Your task to perform on an android device: When is my next meeting? Image 0: 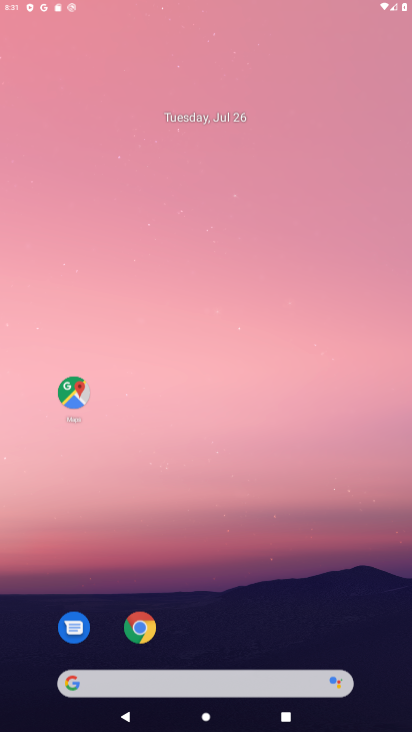
Step 0: press home button
Your task to perform on an android device: When is my next meeting? Image 1: 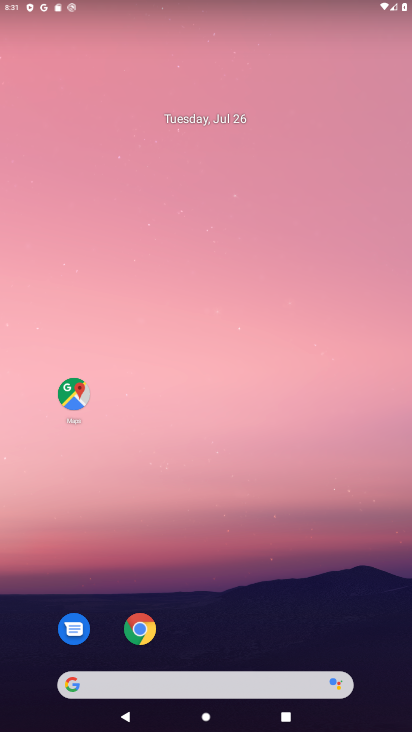
Step 1: drag from (272, 598) to (325, 2)
Your task to perform on an android device: When is my next meeting? Image 2: 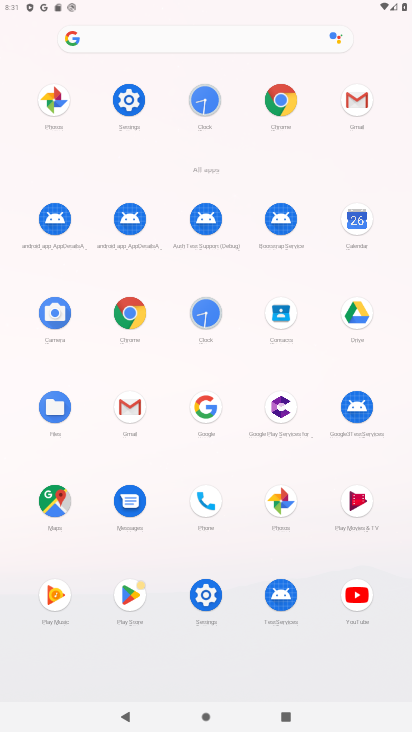
Step 2: click (340, 215)
Your task to perform on an android device: When is my next meeting? Image 3: 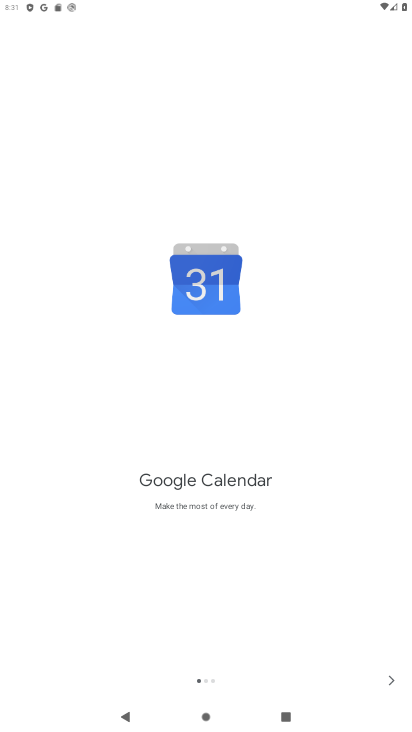
Step 3: click (402, 683)
Your task to perform on an android device: When is my next meeting? Image 4: 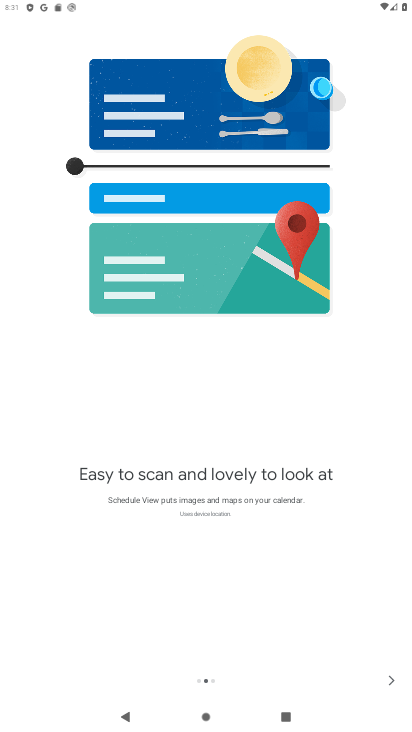
Step 4: click (402, 683)
Your task to perform on an android device: When is my next meeting? Image 5: 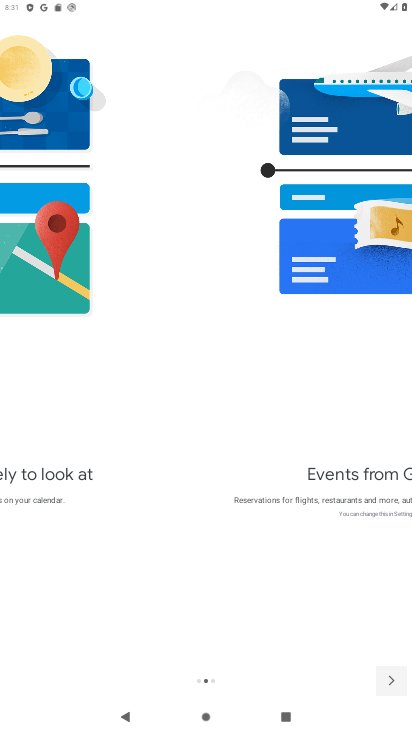
Step 5: click (402, 683)
Your task to perform on an android device: When is my next meeting? Image 6: 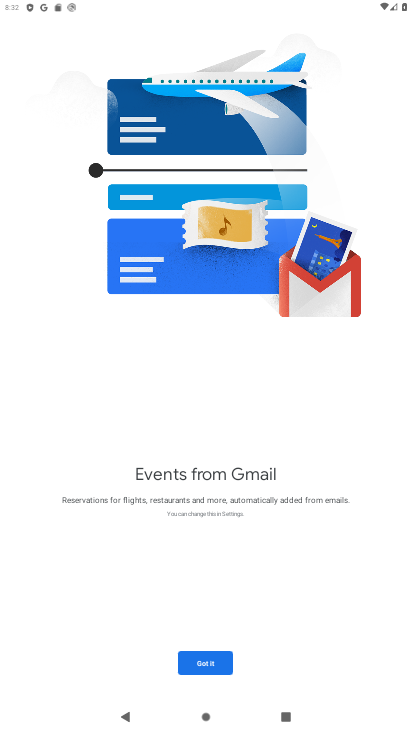
Step 6: click (192, 665)
Your task to perform on an android device: When is my next meeting? Image 7: 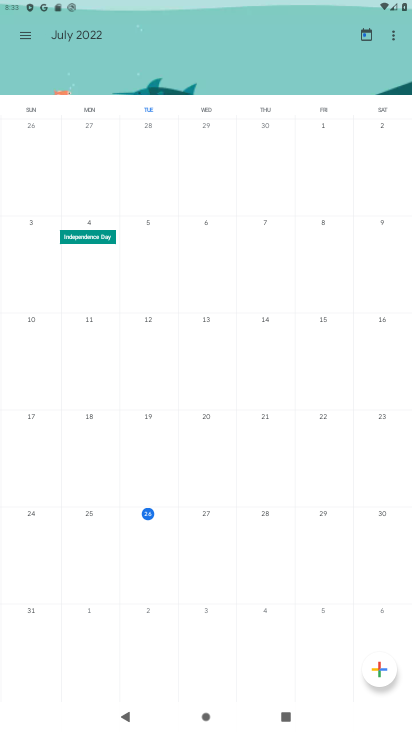
Step 7: click (211, 536)
Your task to perform on an android device: When is my next meeting? Image 8: 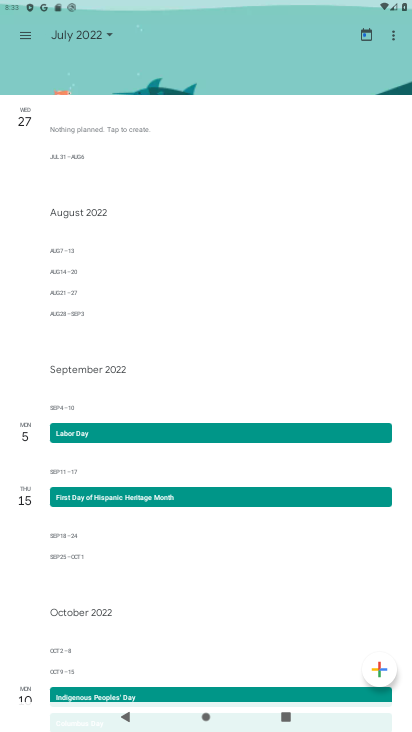
Step 8: task complete